Your task to perform on an android device: open chrome privacy settings Image 0: 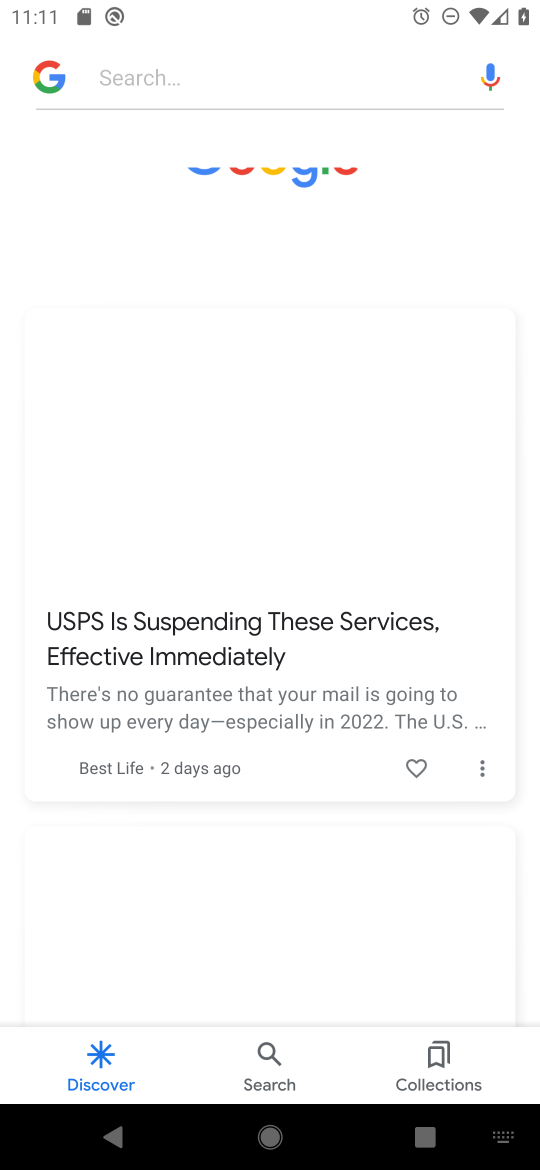
Step 0: press home button
Your task to perform on an android device: open chrome privacy settings Image 1: 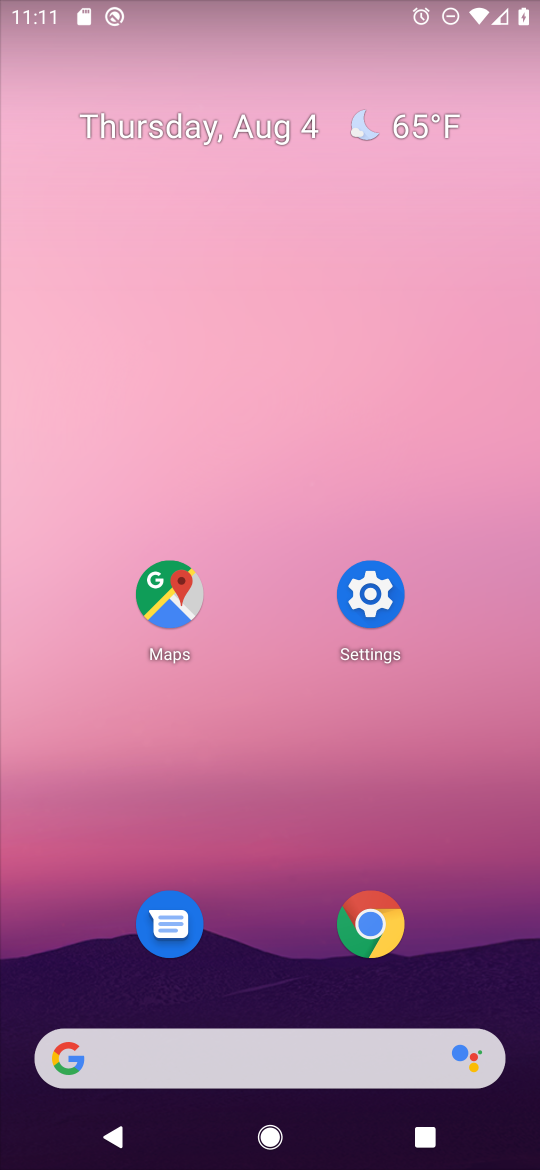
Step 1: click (358, 932)
Your task to perform on an android device: open chrome privacy settings Image 2: 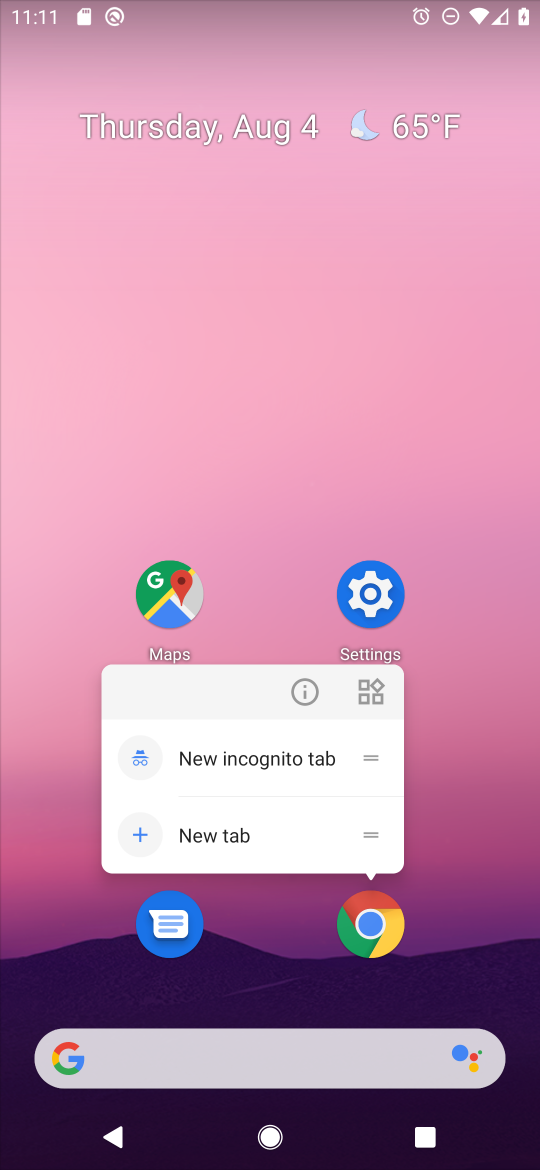
Step 2: click (363, 926)
Your task to perform on an android device: open chrome privacy settings Image 3: 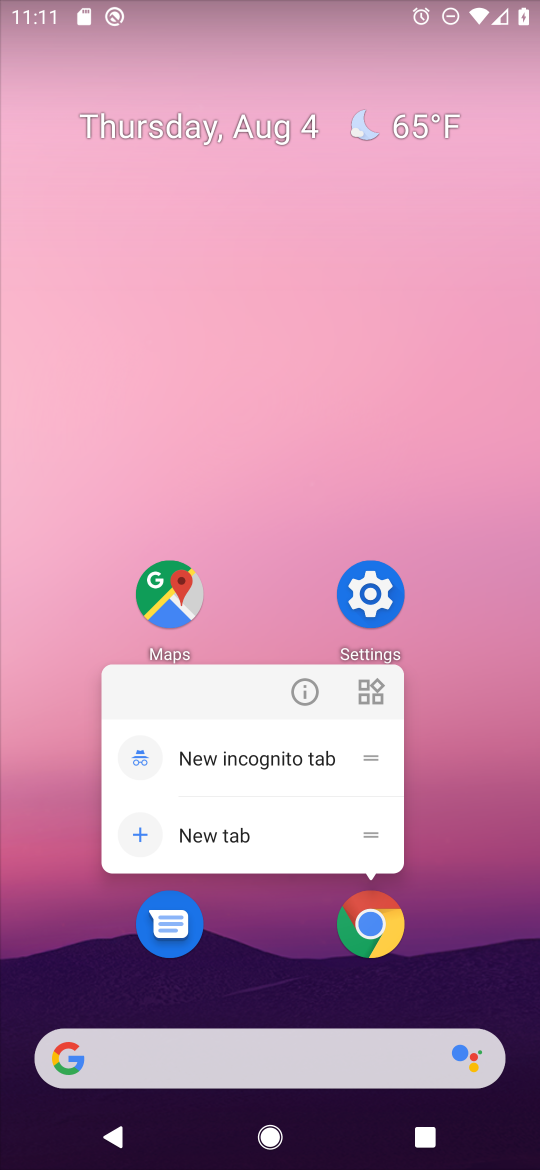
Step 3: click (363, 925)
Your task to perform on an android device: open chrome privacy settings Image 4: 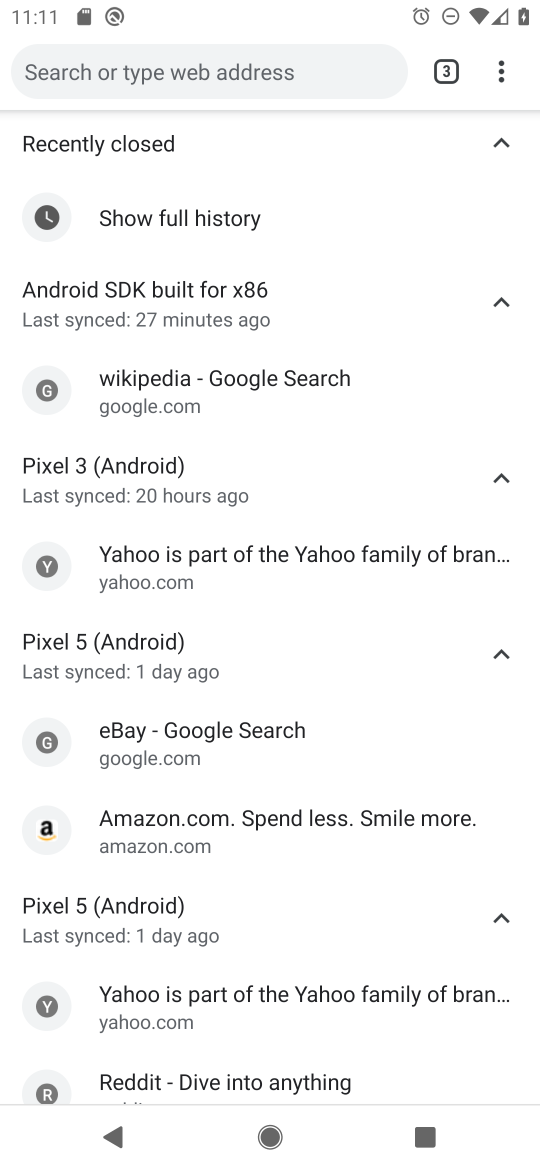
Step 4: drag from (503, 70) to (320, 601)
Your task to perform on an android device: open chrome privacy settings Image 5: 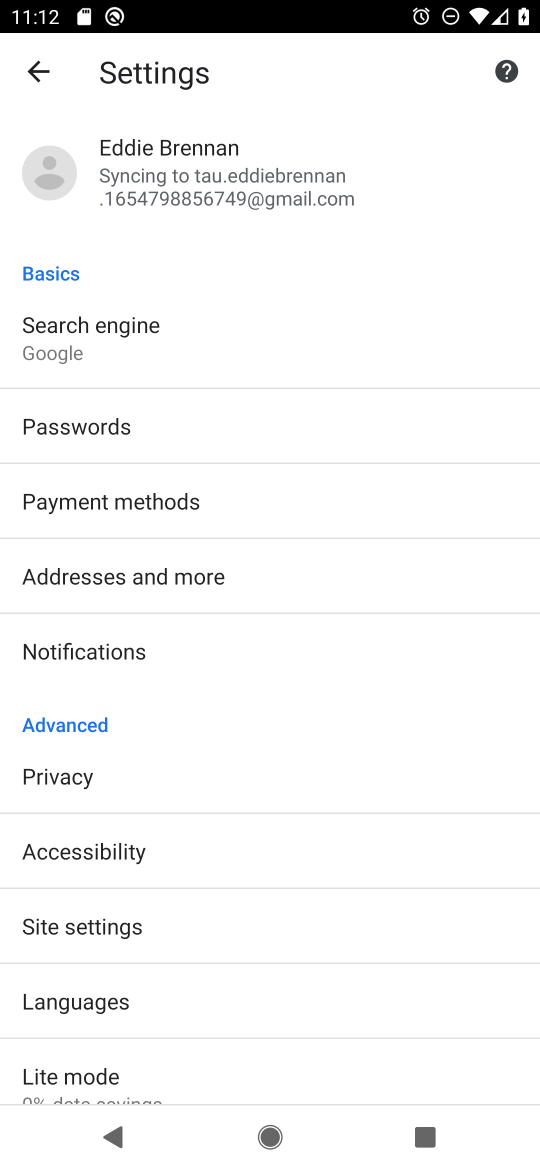
Step 5: click (48, 767)
Your task to perform on an android device: open chrome privacy settings Image 6: 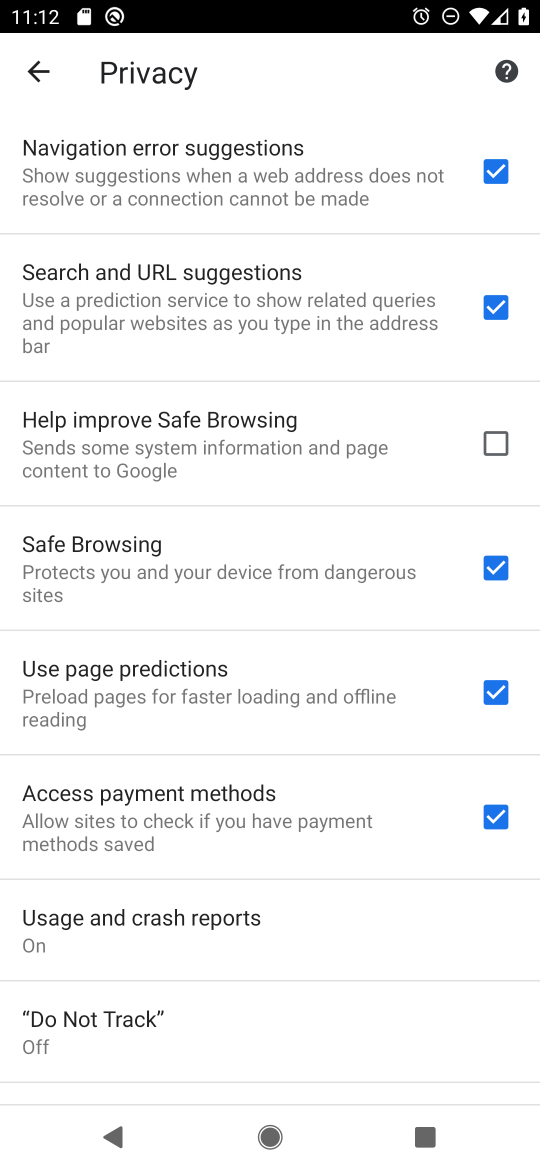
Step 6: task complete